Your task to perform on an android device: turn off wifi Image 0: 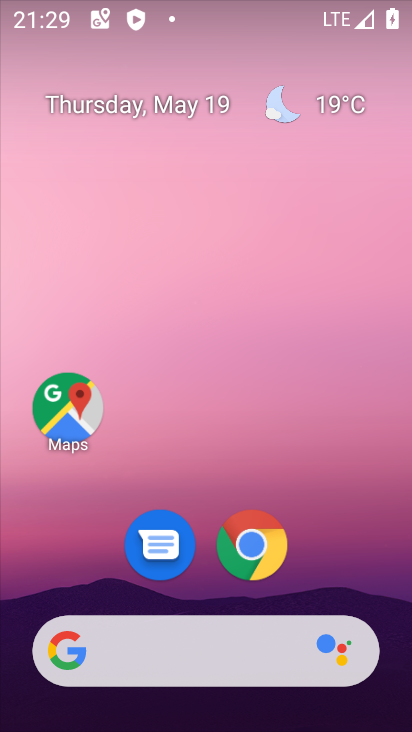
Step 0: drag from (355, 536) to (336, 161)
Your task to perform on an android device: turn off wifi Image 1: 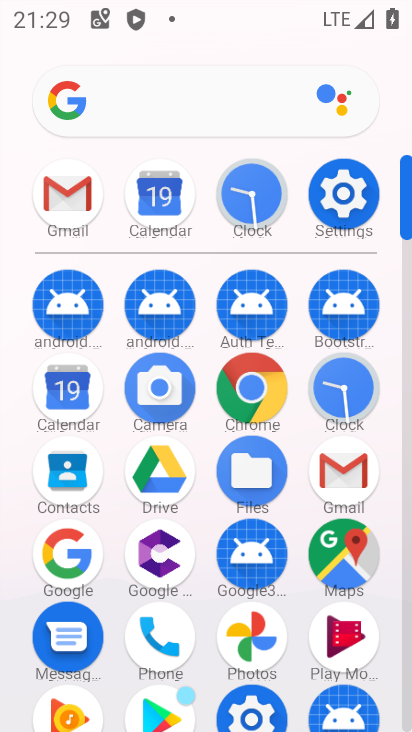
Step 1: click (356, 208)
Your task to perform on an android device: turn off wifi Image 2: 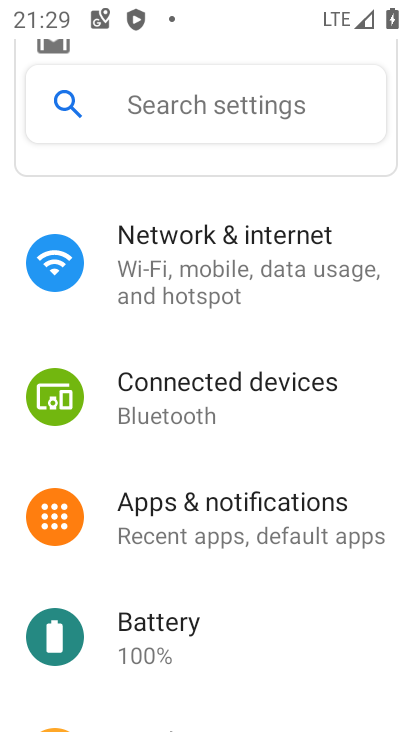
Step 2: click (168, 294)
Your task to perform on an android device: turn off wifi Image 3: 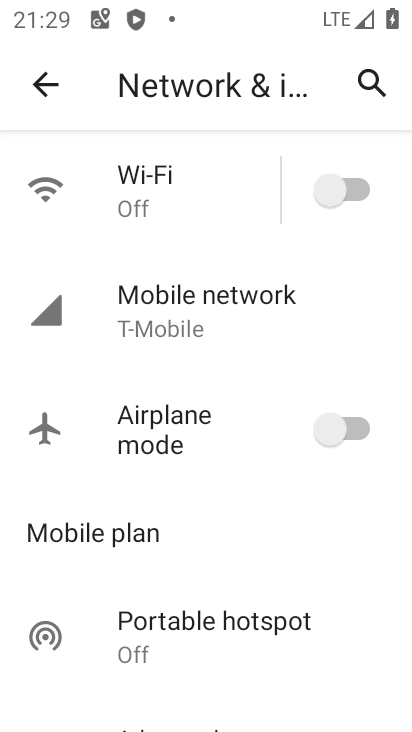
Step 3: click (329, 210)
Your task to perform on an android device: turn off wifi Image 4: 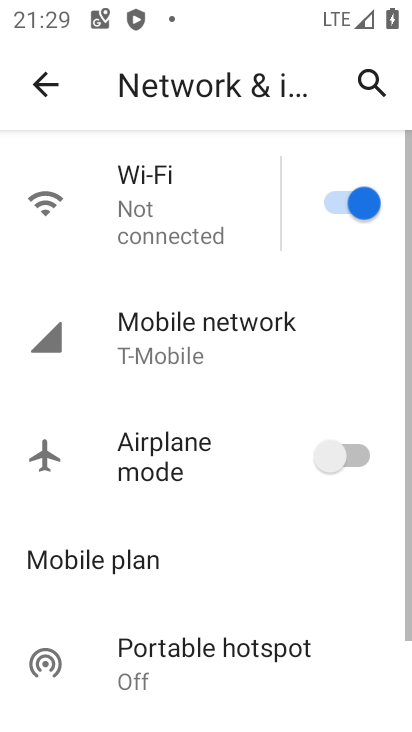
Step 4: task complete